Your task to perform on an android device: delete browsing data in the chrome app Image 0: 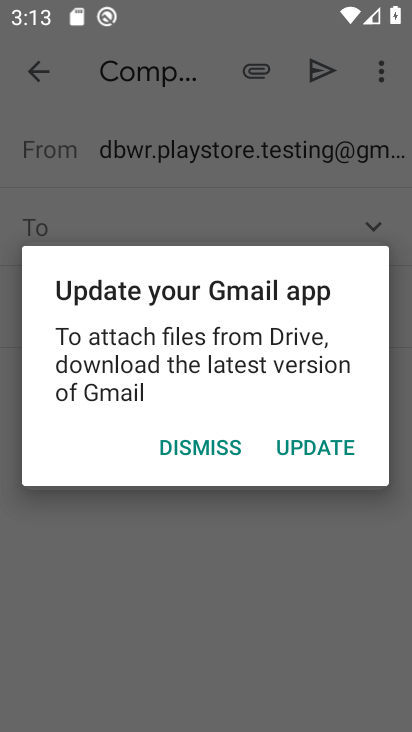
Step 0: press home button
Your task to perform on an android device: delete browsing data in the chrome app Image 1: 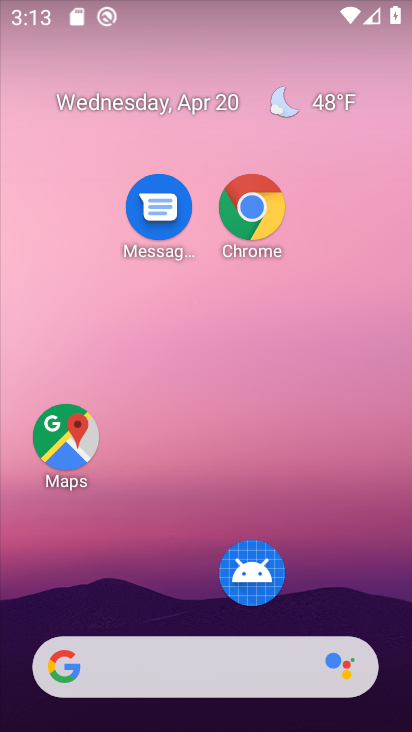
Step 1: drag from (140, 621) to (157, 311)
Your task to perform on an android device: delete browsing data in the chrome app Image 2: 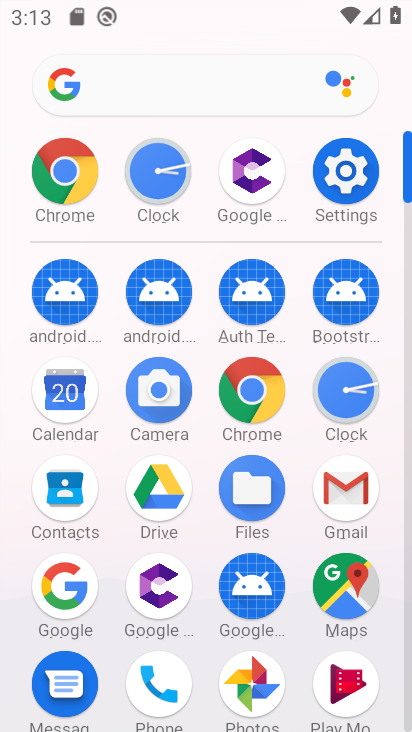
Step 2: click (261, 391)
Your task to perform on an android device: delete browsing data in the chrome app Image 3: 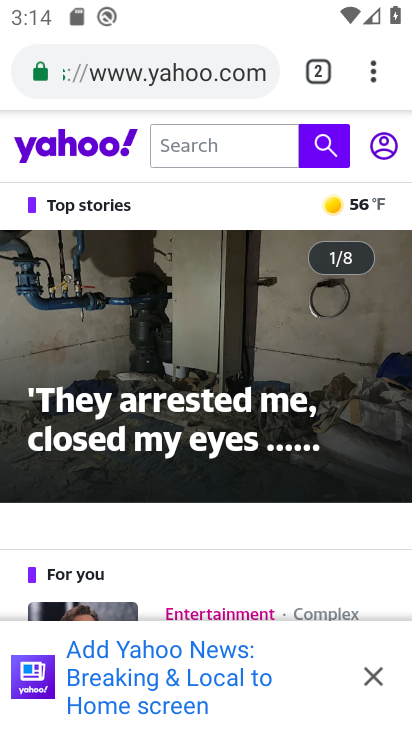
Step 3: click (376, 69)
Your task to perform on an android device: delete browsing data in the chrome app Image 4: 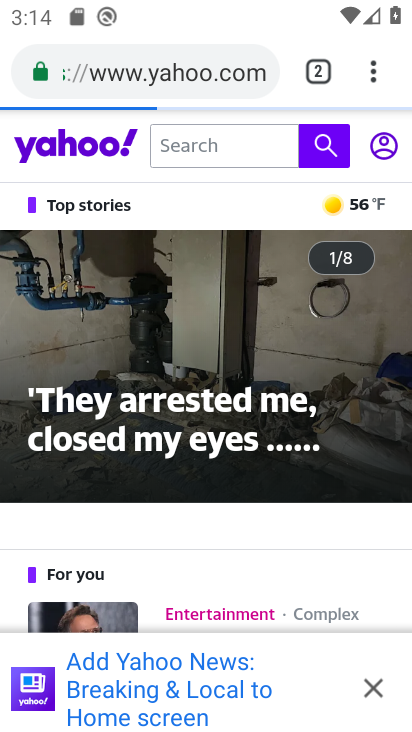
Step 4: click (376, 69)
Your task to perform on an android device: delete browsing data in the chrome app Image 5: 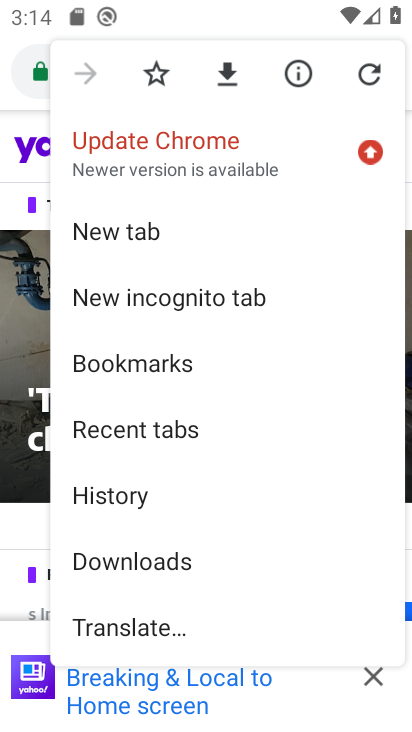
Step 5: click (139, 495)
Your task to perform on an android device: delete browsing data in the chrome app Image 6: 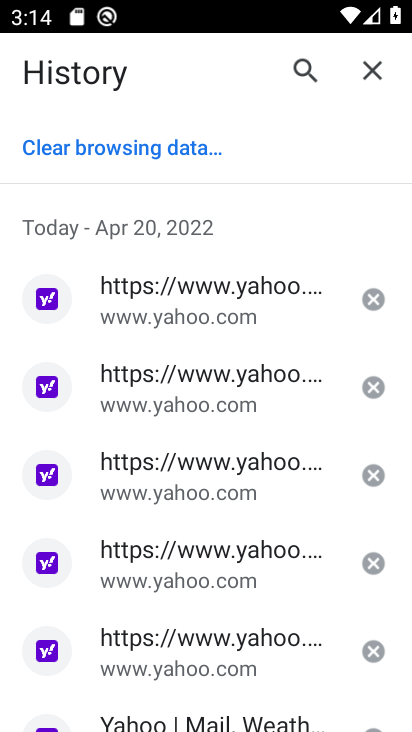
Step 6: click (161, 144)
Your task to perform on an android device: delete browsing data in the chrome app Image 7: 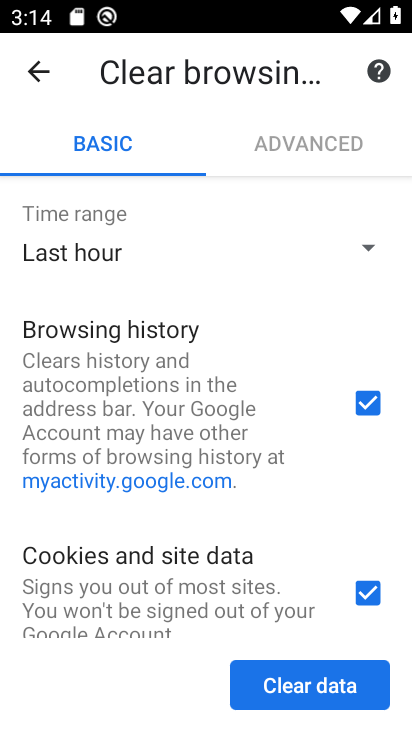
Step 7: click (359, 591)
Your task to perform on an android device: delete browsing data in the chrome app Image 8: 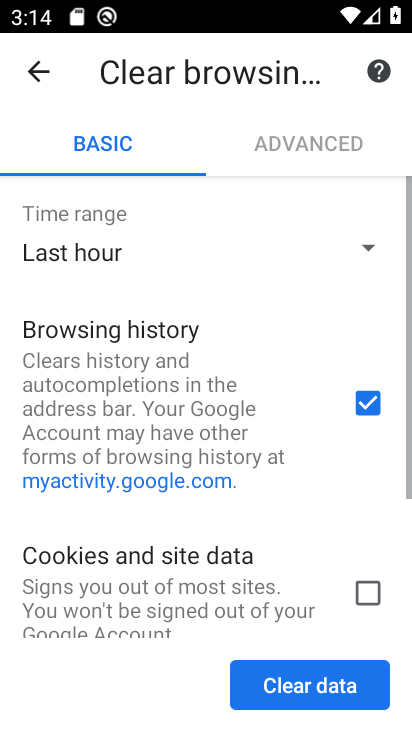
Step 8: click (337, 684)
Your task to perform on an android device: delete browsing data in the chrome app Image 9: 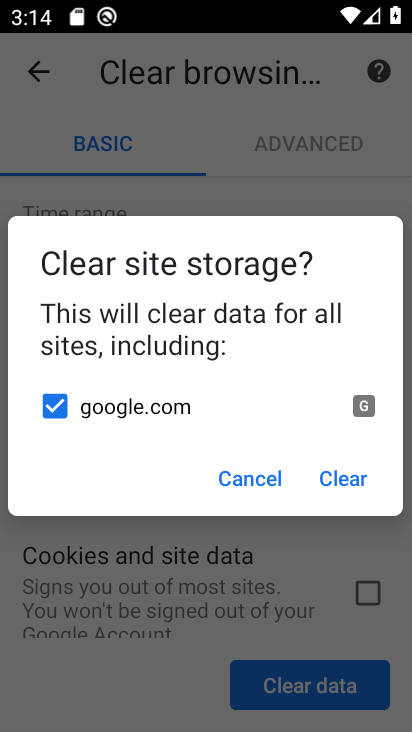
Step 9: click (347, 483)
Your task to perform on an android device: delete browsing data in the chrome app Image 10: 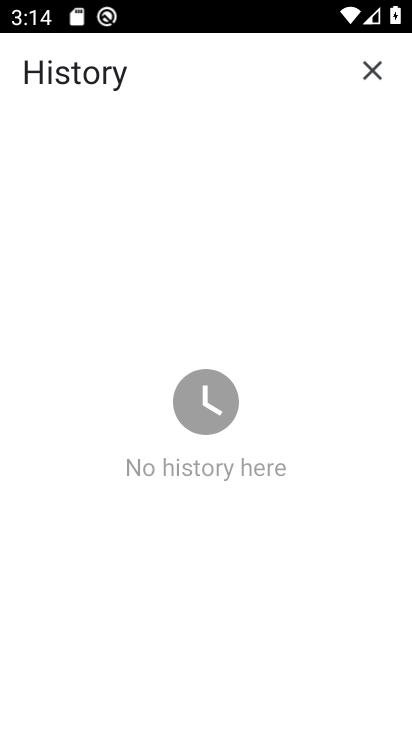
Step 10: task complete